Your task to perform on an android device: Go to Google maps Image 0: 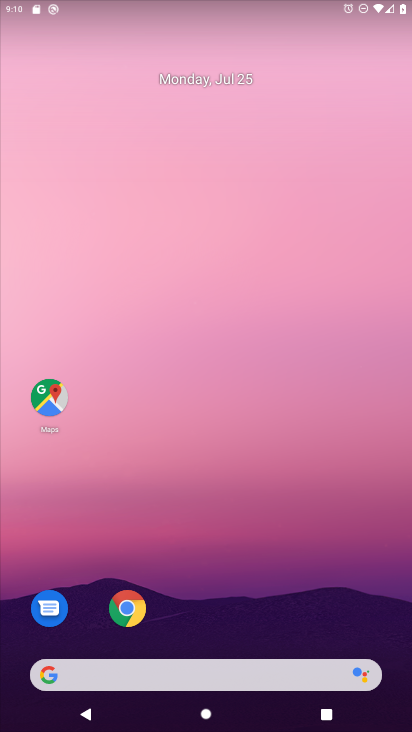
Step 0: click (42, 411)
Your task to perform on an android device: Go to Google maps Image 1: 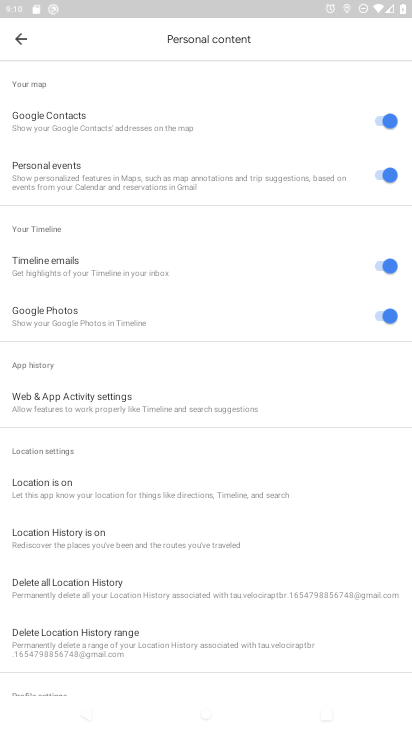
Step 1: click (21, 38)
Your task to perform on an android device: Go to Google maps Image 2: 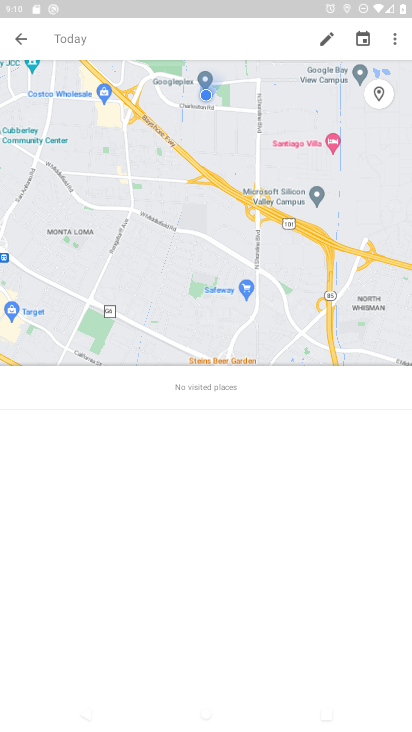
Step 2: task complete